Your task to perform on an android device: Open ESPN.com Image 0: 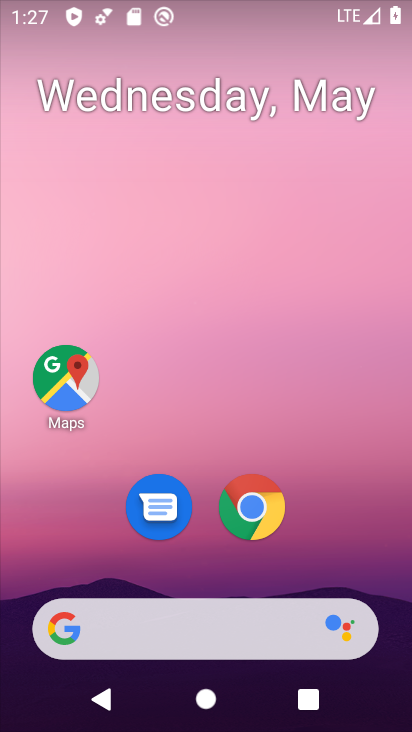
Step 0: click (267, 514)
Your task to perform on an android device: Open ESPN.com Image 1: 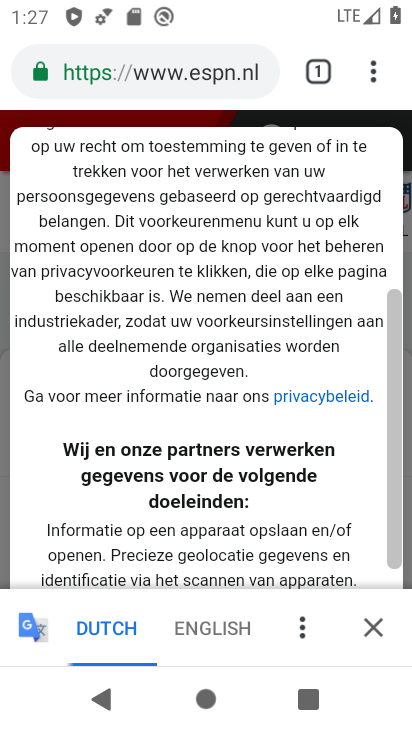
Step 1: task complete